Your task to perform on an android device: turn on showing notifications on the lock screen Image 0: 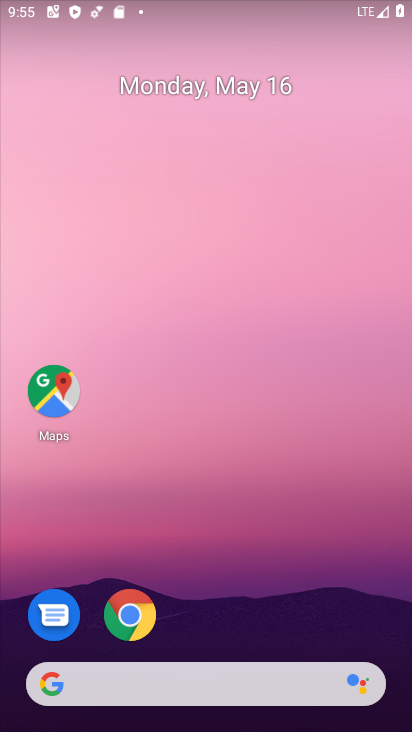
Step 0: drag from (290, 653) to (294, 0)
Your task to perform on an android device: turn on showing notifications on the lock screen Image 1: 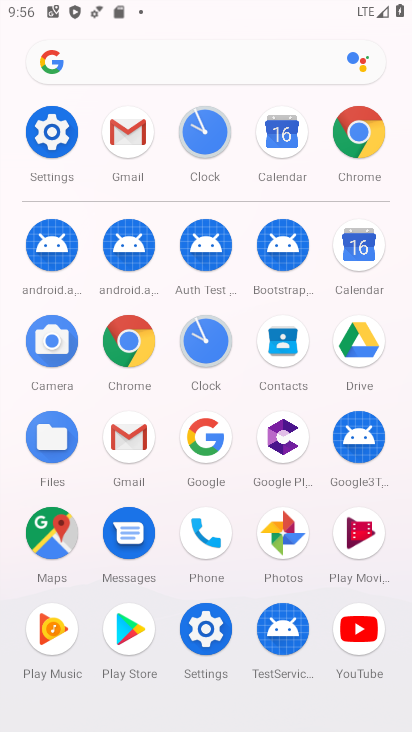
Step 1: click (51, 149)
Your task to perform on an android device: turn on showing notifications on the lock screen Image 2: 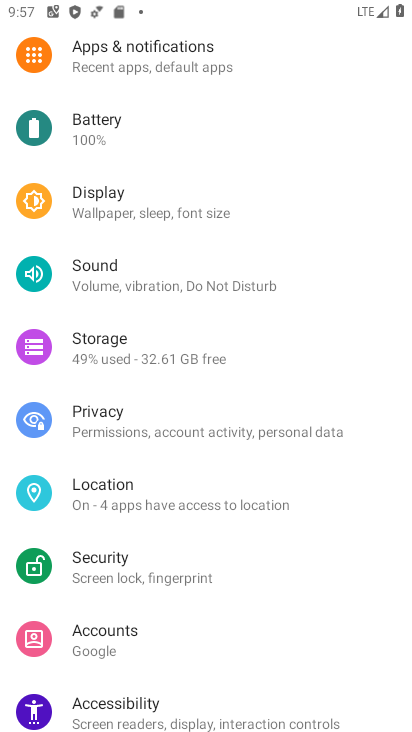
Step 2: drag from (139, 212) to (174, 590)
Your task to perform on an android device: turn on showing notifications on the lock screen Image 3: 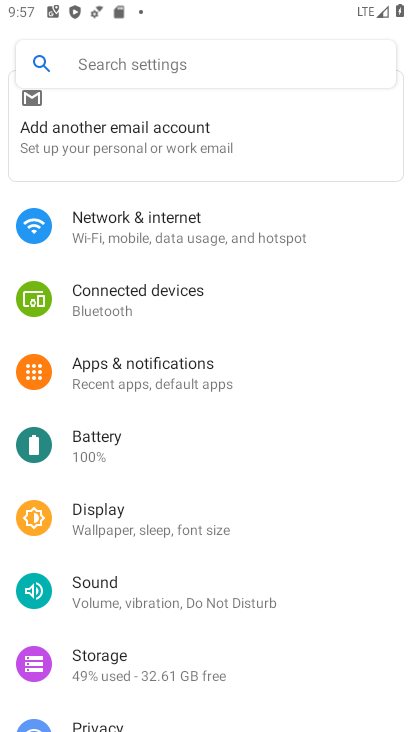
Step 3: click (187, 377)
Your task to perform on an android device: turn on showing notifications on the lock screen Image 4: 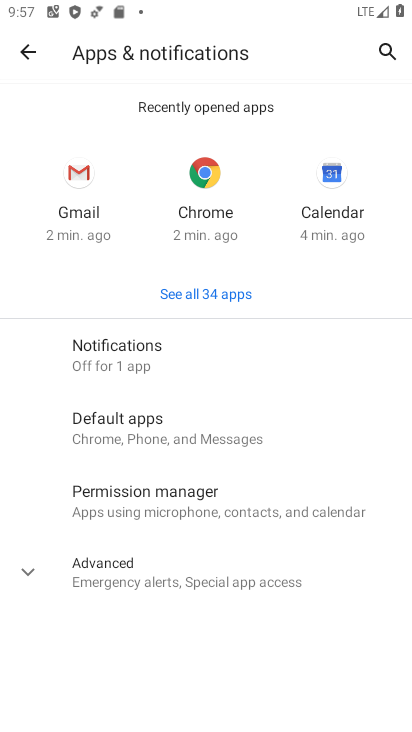
Step 4: click (184, 346)
Your task to perform on an android device: turn on showing notifications on the lock screen Image 5: 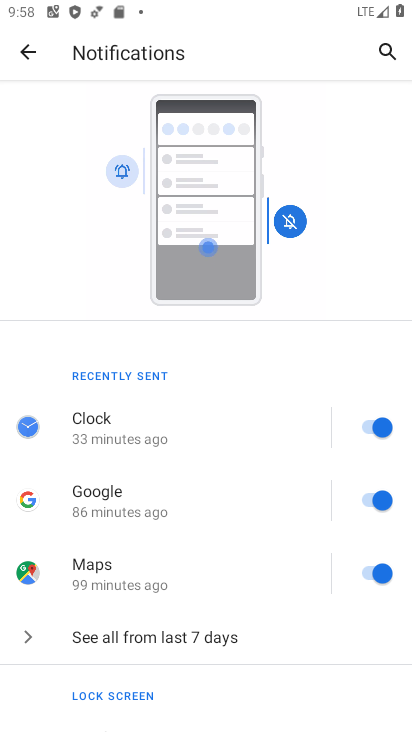
Step 5: drag from (176, 592) to (181, 296)
Your task to perform on an android device: turn on showing notifications on the lock screen Image 6: 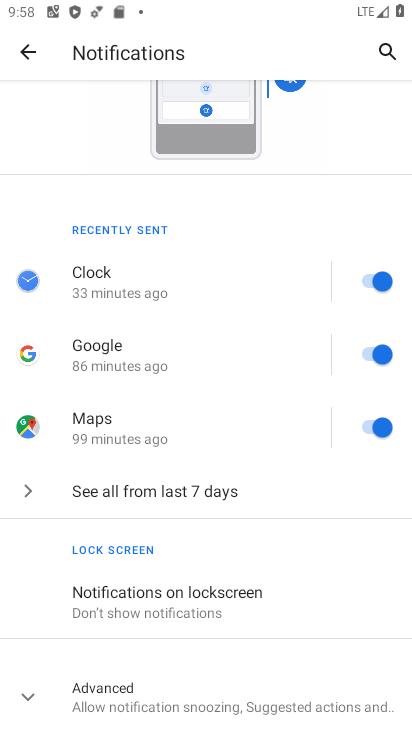
Step 6: click (157, 601)
Your task to perform on an android device: turn on showing notifications on the lock screen Image 7: 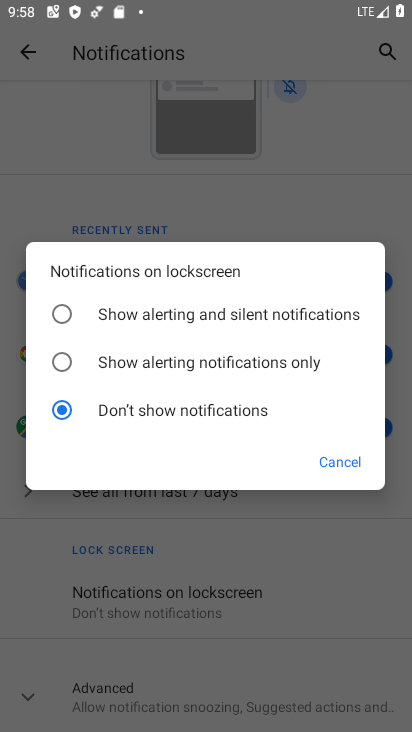
Step 7: click (75, 307)
Your task to perform on an android device: turn on showing notifications on the lock screen Image 8: 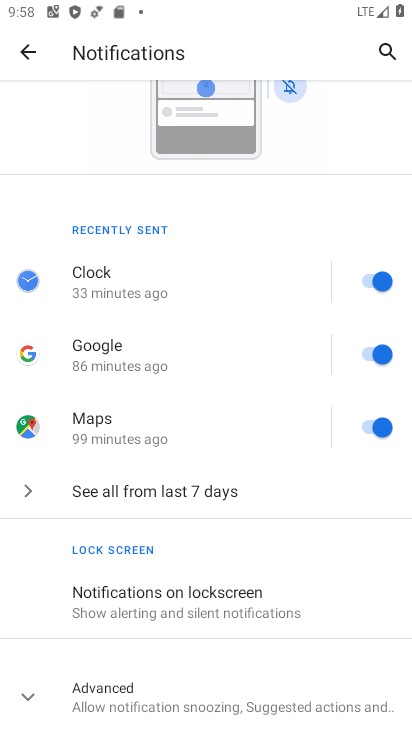
Step 8: task complete